Your task to perform on an android device: Check the news Image 0: 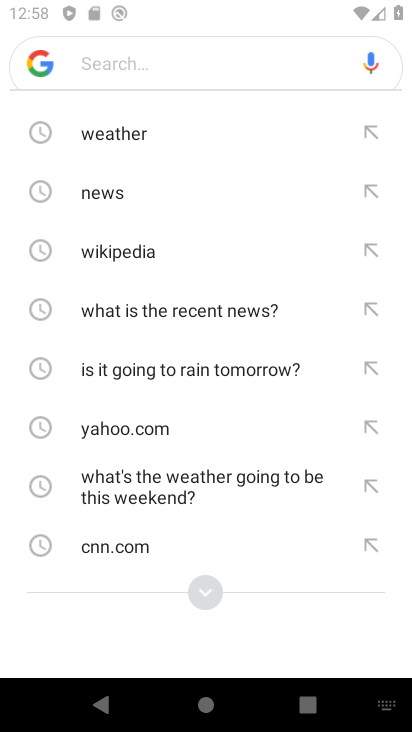
Step 0: press back button
Your task to perform on an android device: Check the news Image 1: 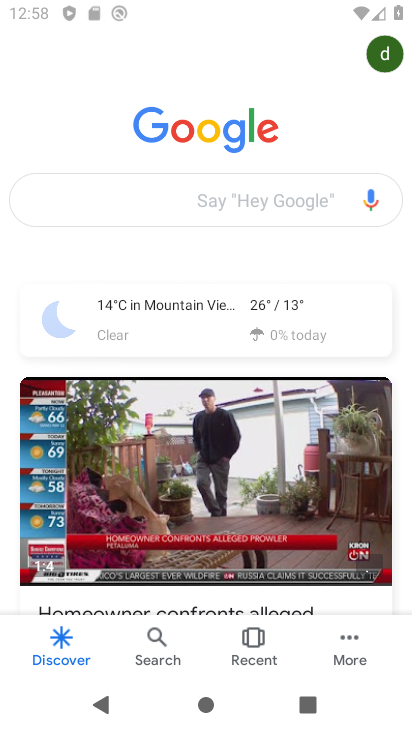
Step 1: click (189, 202)
Your task to perform on an android device: Check the news Image 2: 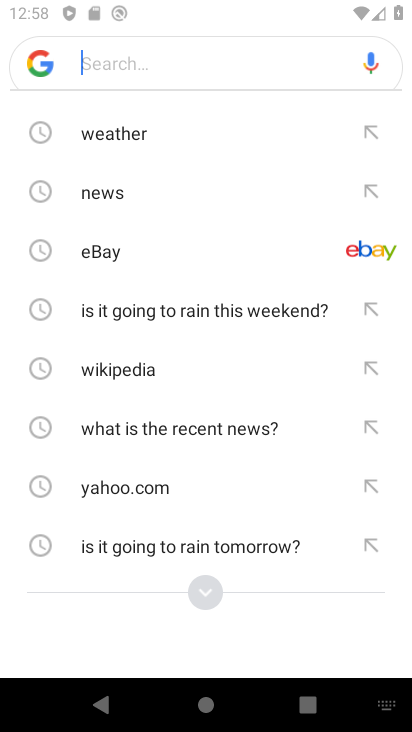
Step 2: click (94, 180)
Your task to perform on an android device: Check the news Image 3: 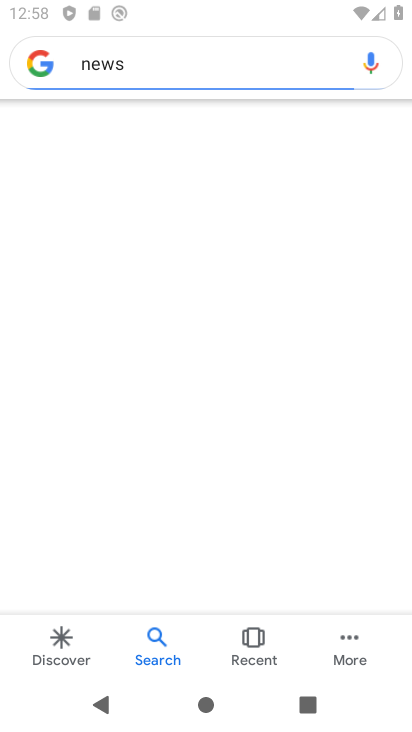
Step 3: task complete